Your task to perform on an android device: change timer sound Image 0: 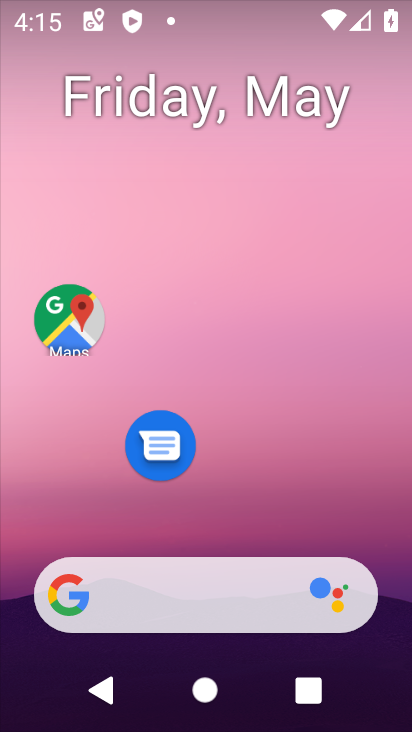
Step 0: drag from (200, 518) to (234, 142)
Your task to perform on an android device: change timer sound Image 1: 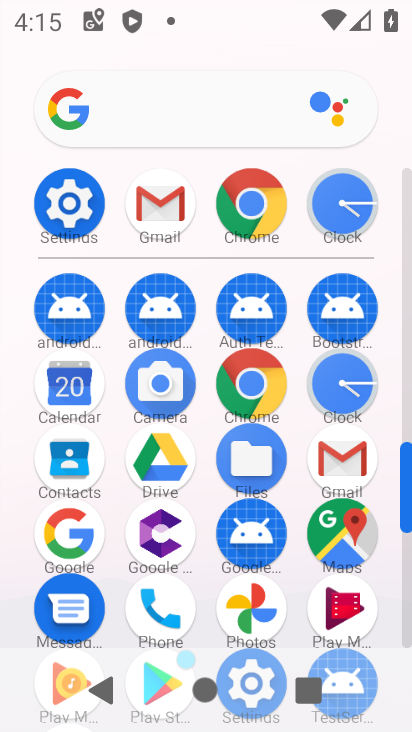
Step 1: click (343, 368)
Your task to perform on an android device: change timer sound Image 2: 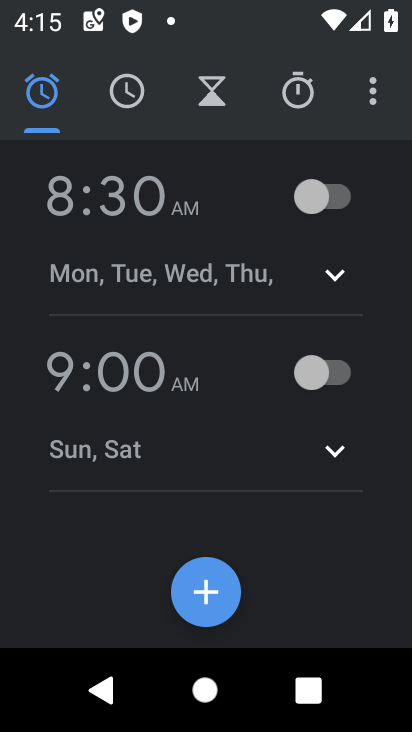
Step 2: click (375, 90)
Your task to perform on an android device: change timer sound Image 3: 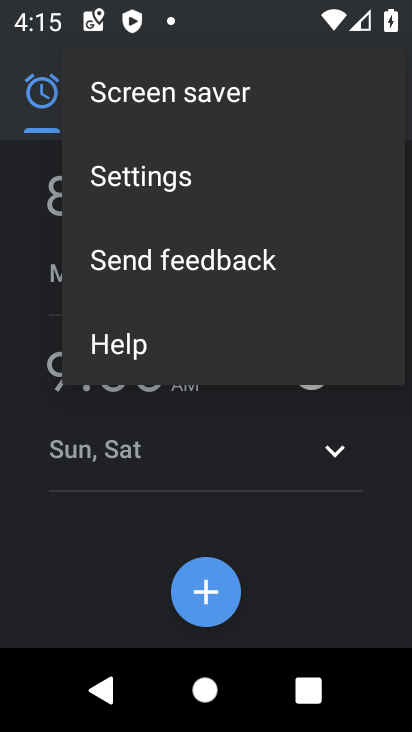
Step 3: click (227, 203)
Your task to perform on an android device: change timer sound Image 4: 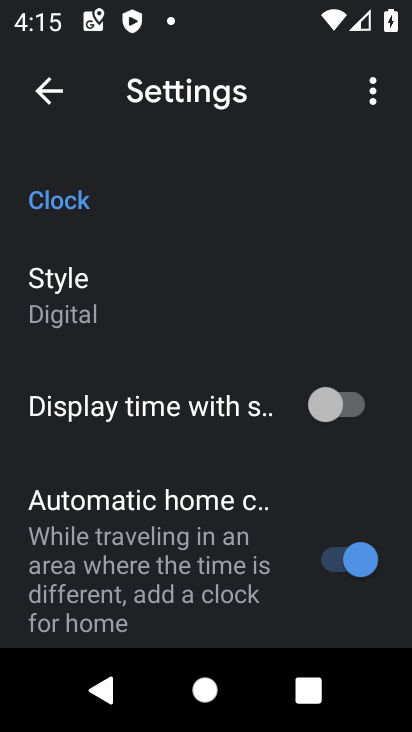
Step 4: drag from (84, 408) to (120, 221)
Your task to perform on an android device: change timer sound Image 5: 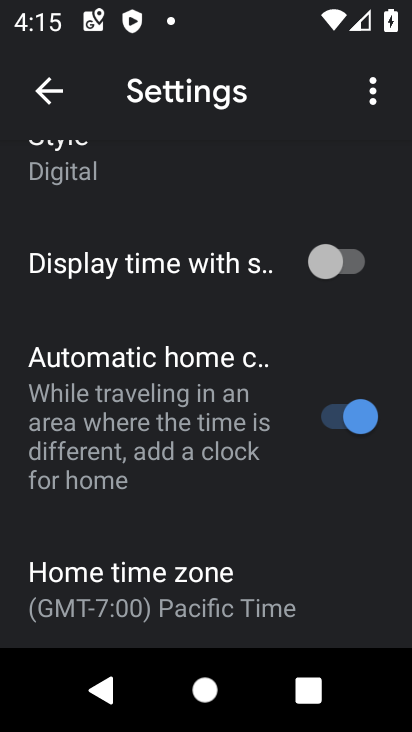
Step 5: drag from (100, 423) to (162, 102)
Your task to perform on an android device: change timer sound Image 6: 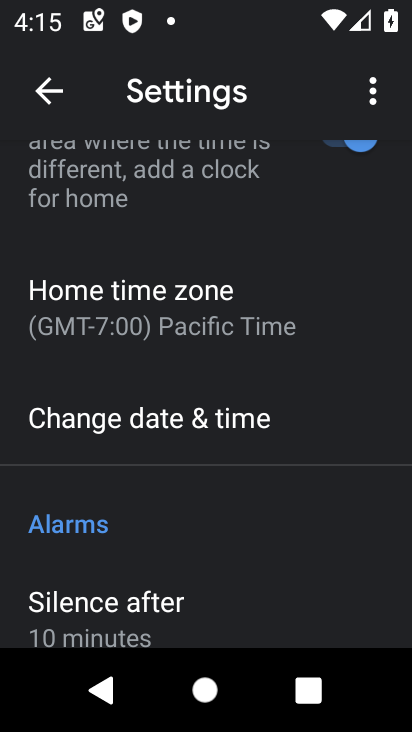
Step 6: drag from (121, 421) to (168, 167)
Your task to perform on an android device: change timer sound Image 7: 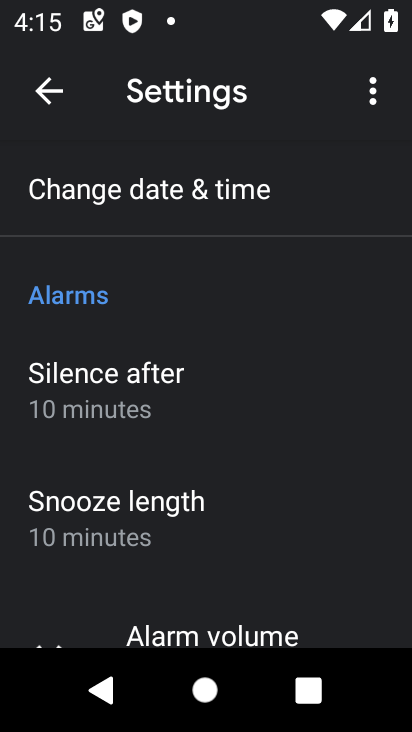
Step 7: drag from (164, 462) to (198, 257)
Your task to perform on an android device: change timer sound Image 8: 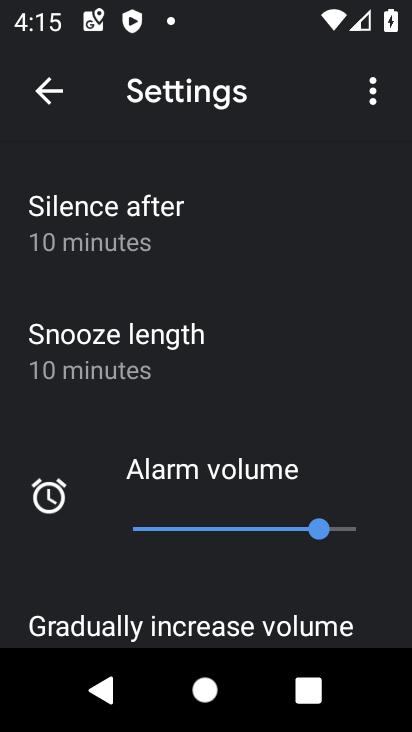
Step 8: drag from (177, 505) to (214, 241)
Your task to perform on an android device: change timer sound Image 9: 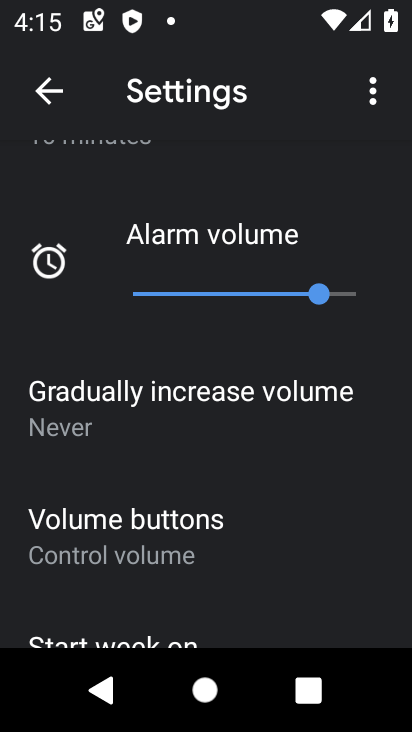
Step 9: drag from (142, 580) to (191, 265)
Your task to perform on an android device: change timer sound Image 10: 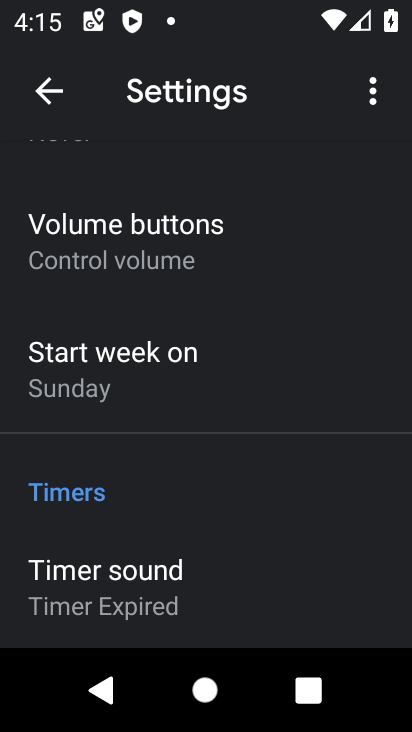
Step 10: drag from (127, 593) to (154, 442)
Your task to perform on an android device: change timer sound Image 11: 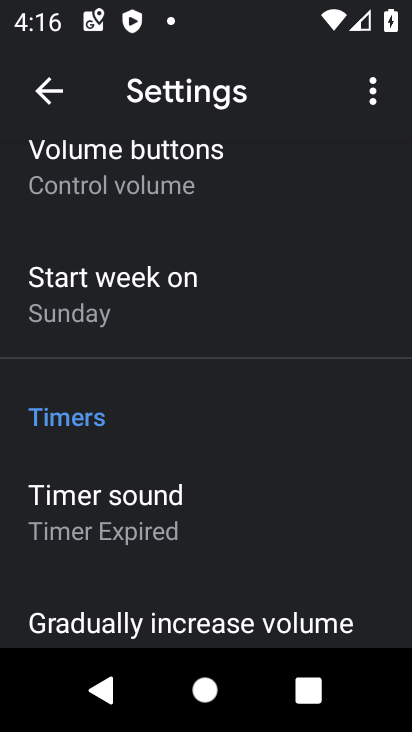
Step 11: click (123, 536)
Your task to perform on an android device: change timer sound Image 12: 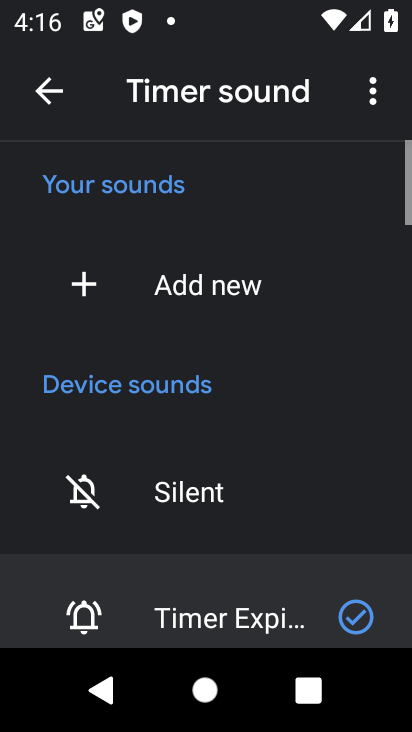
Step 12: drag from (157, 587) to (208, 225)
Your task to perform on an android device: change timer sound Image 13: 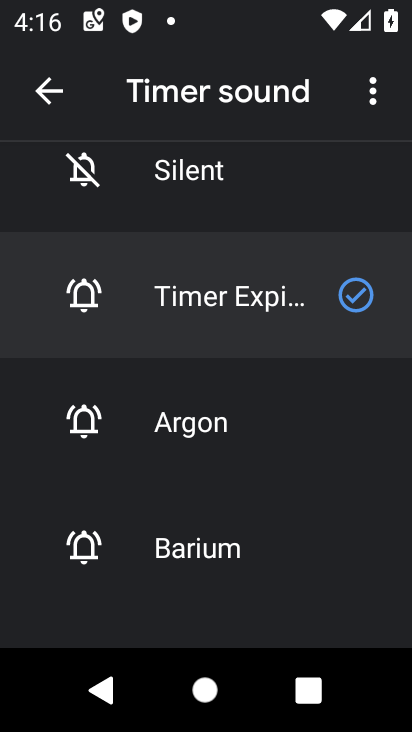
Step 13: click (193, 447)
Your task to perform on an android device: change timer sound Image 14: 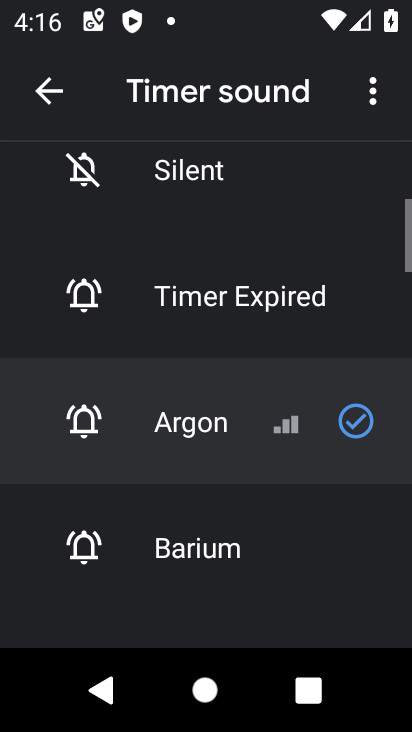
Step 14: task complete